Your task to perform on an android device: delete the emails in spam in the gmail app Image 0: 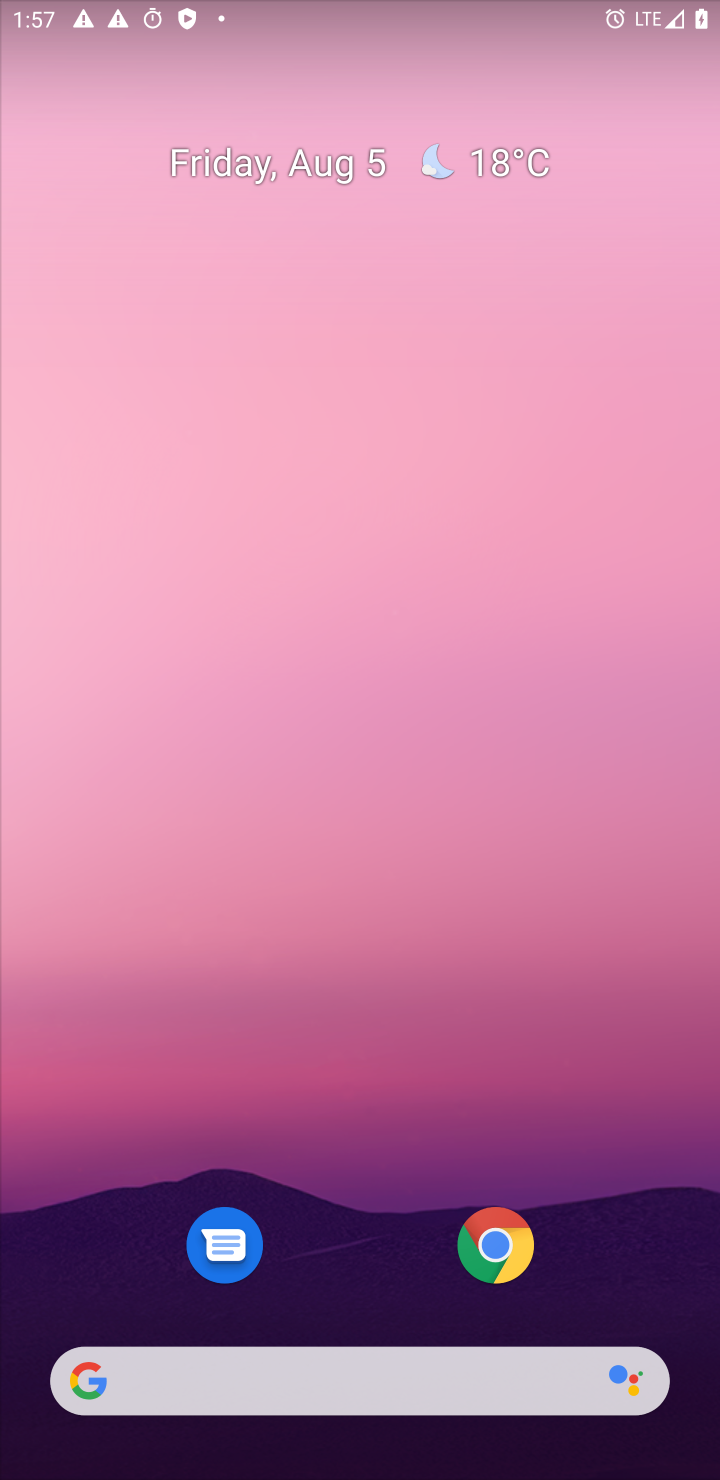
Step 0: drag from (532, 740) to (699, 136)
Your task to perform on an android device: delete the emails in spam in the gmail app Image 1: 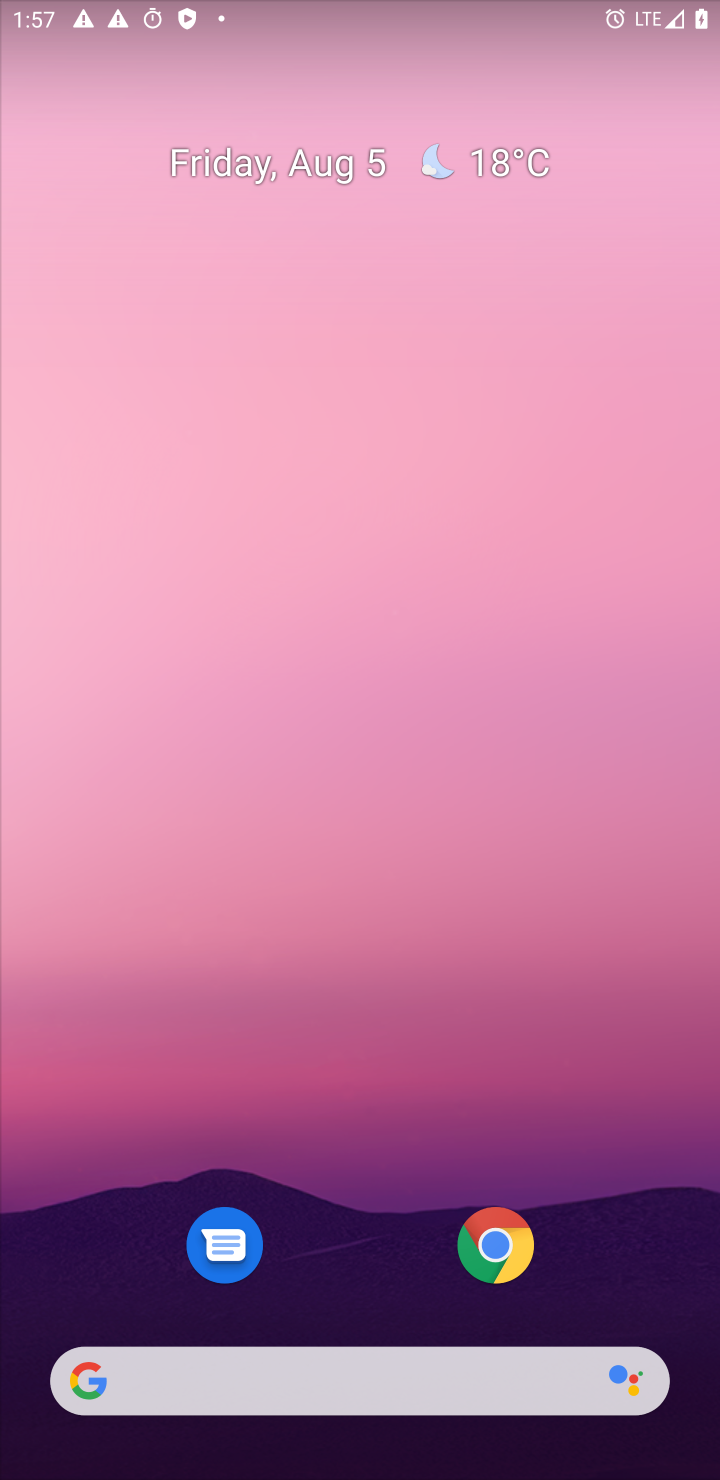
Step 1: drag from (403, 1230) to (433, 177)
Your task to perform on an android device: delete the emails in spam in the gmail app Image 2: 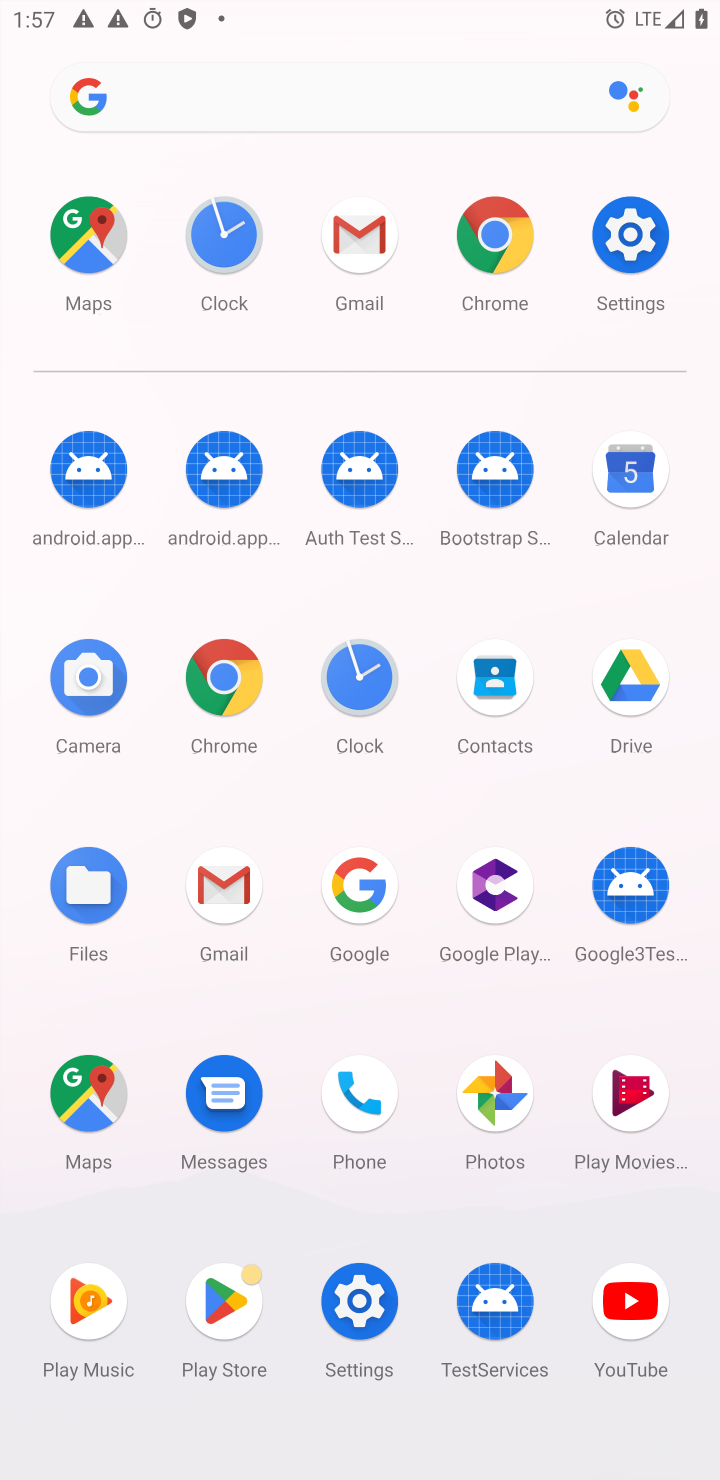
Step 2: click (379, 240)
Your task to perform on an android device: delete the emails in spam in the gmail app Image 3: 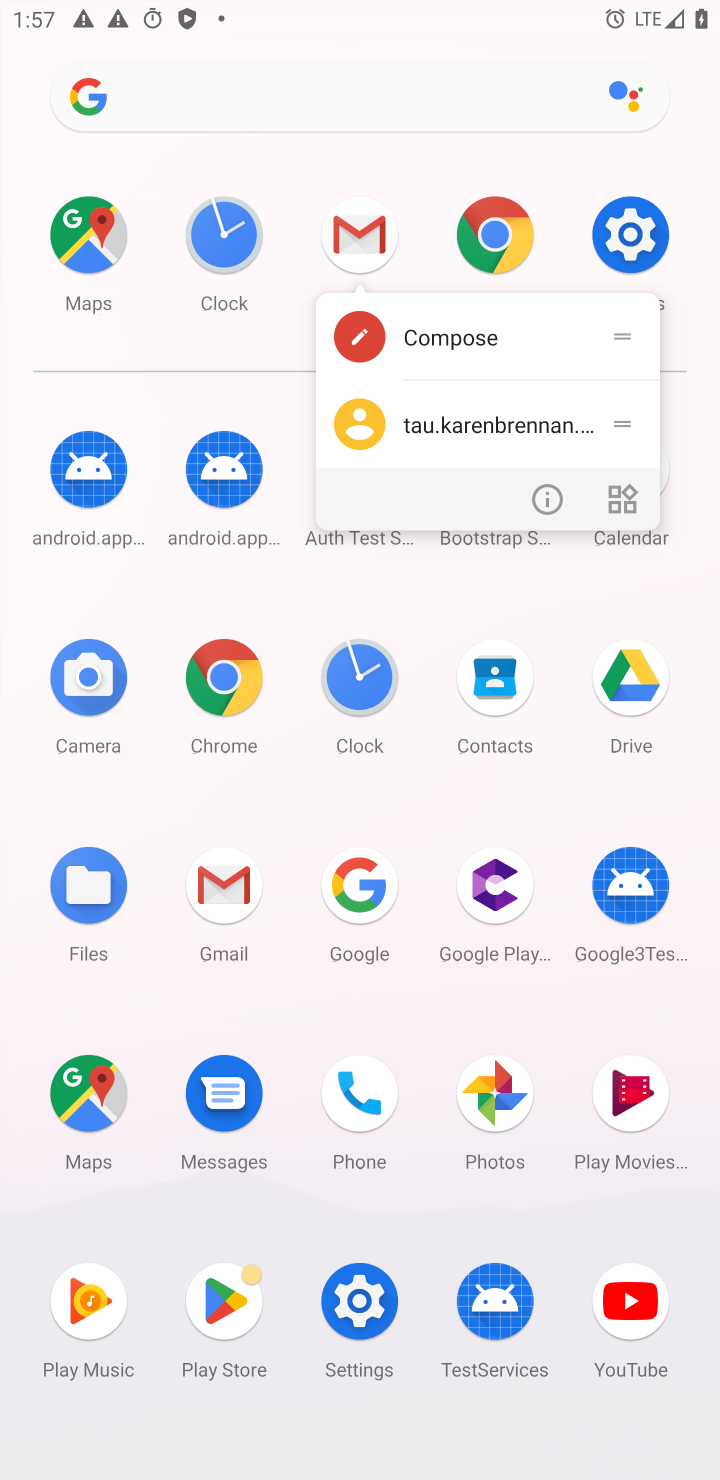
Step 3: click (366, 245)
Your task to perform on an android device: delete the emails in spam in the gmail app Image 4: 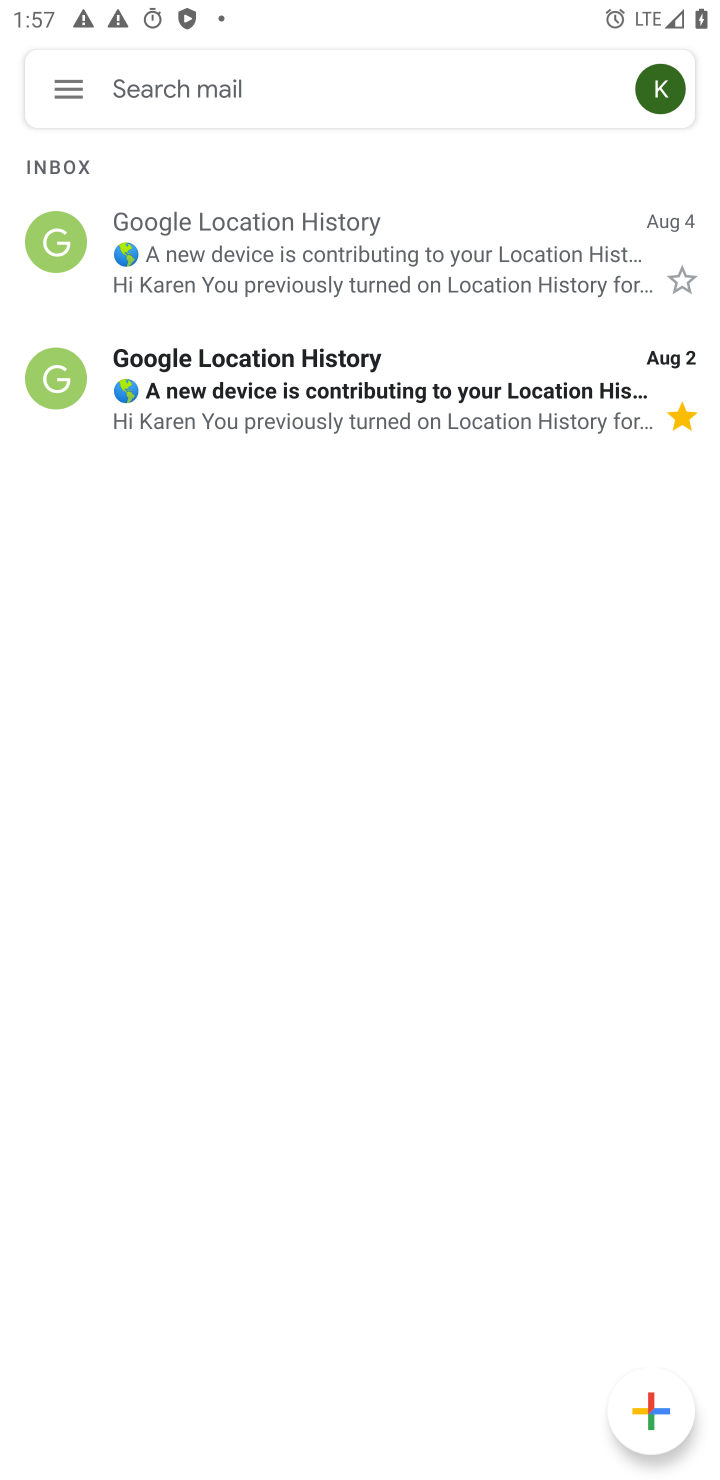
Step 4: click (80, 83)
Your task to perform on an android device: delete the emails in spam in the gmail app Image 5: 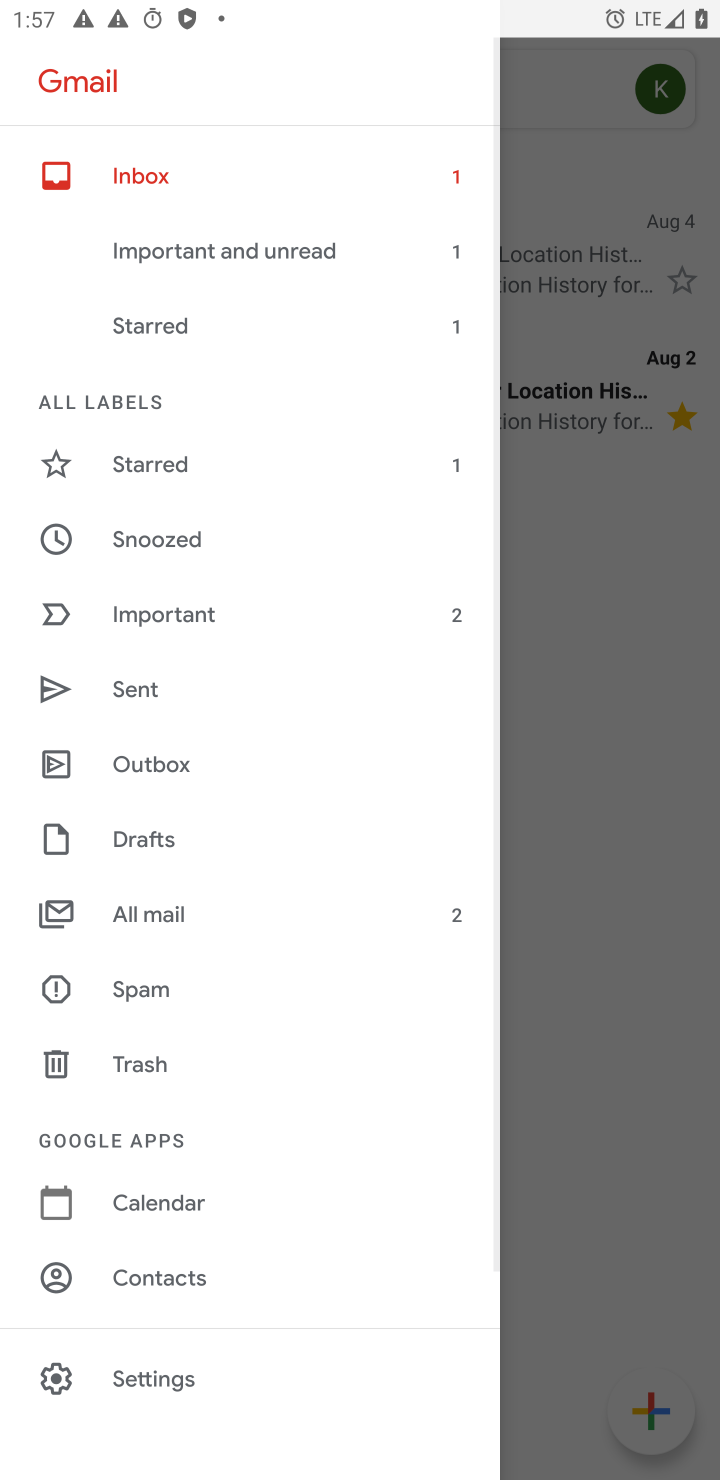
Step 5: click (150, 988)
Your task to perform on an android device: delete the emails in spam in the gmail app Image 6: 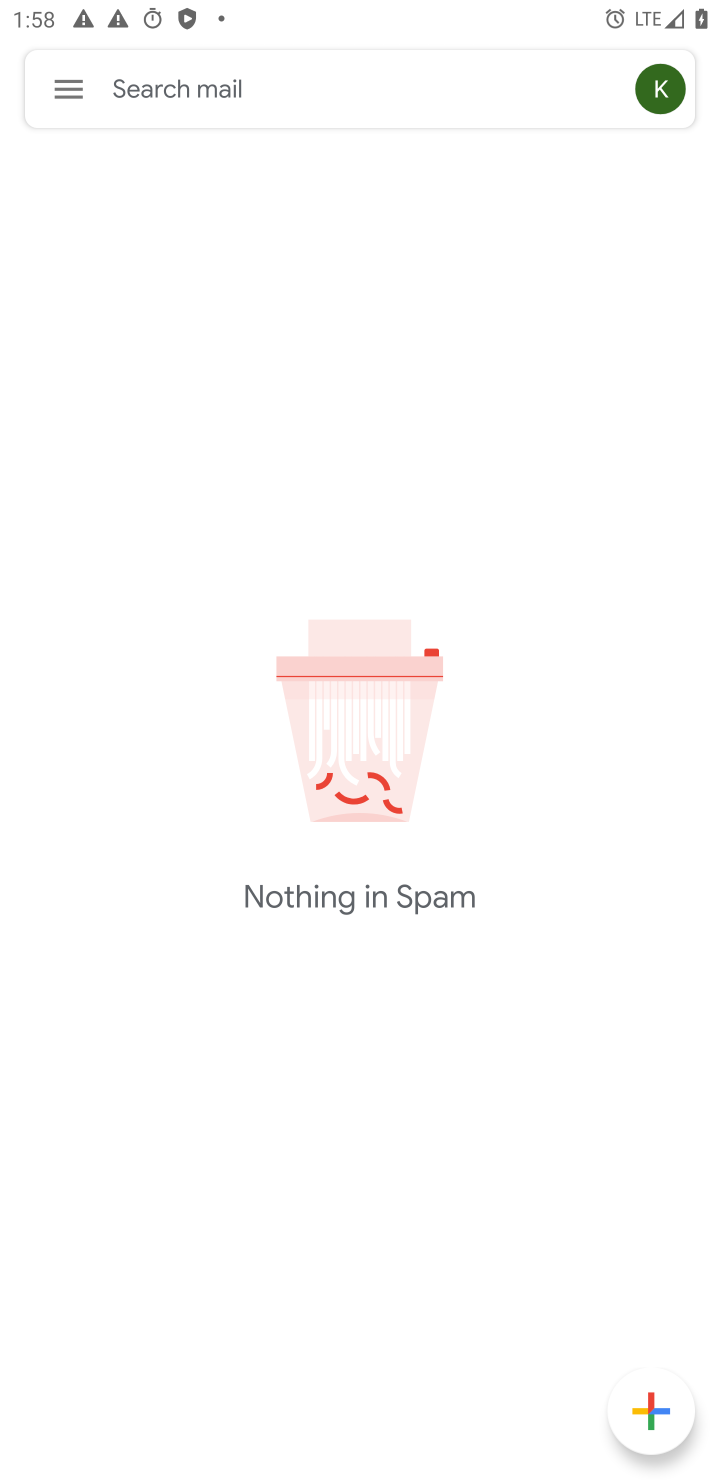
Step 6: task complete